Your task to perform on an android device: Open Maps and search for coffee Image 0: 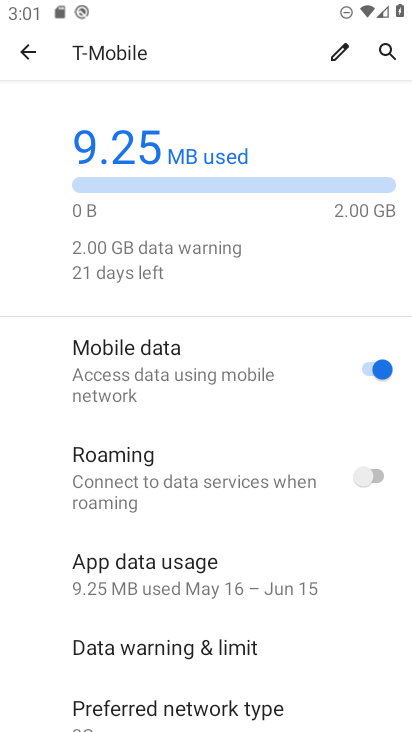
Step 0: press home button
Your task to perform on an android device: Open Maps and search for coffee Image 1: 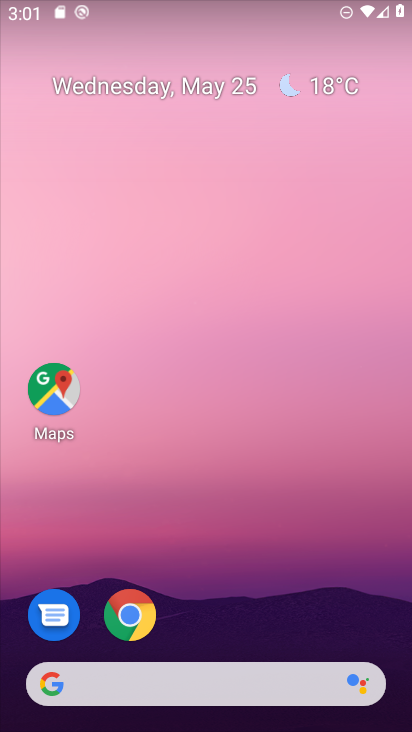
Step 1: click (49, 383)
Your task to perform on an android device: Open Maps and search for coffee Image 2: 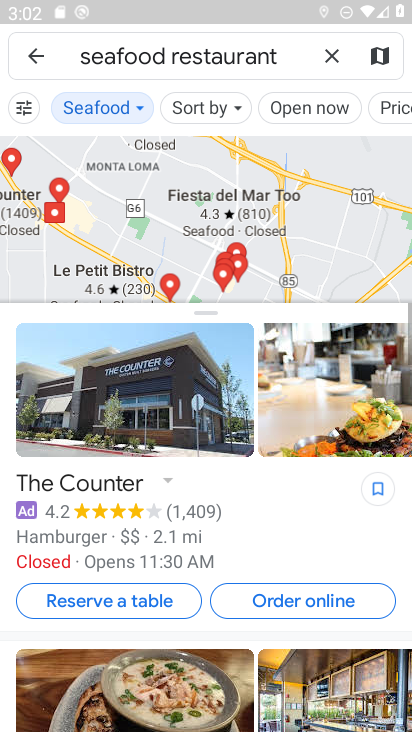
Step 2: click (324, 47)
Your task to perform on an android device: Open Maps and search for coffee Image 3: 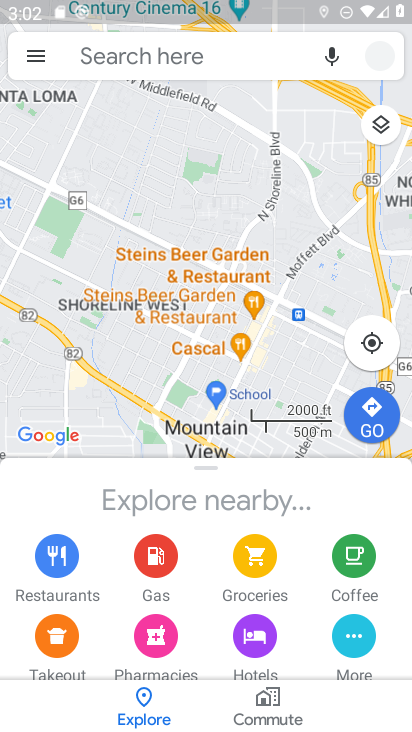
Step 3: click (225, 45)
Your task to perform on an android device: Open Maps and search for coffee Image 4: 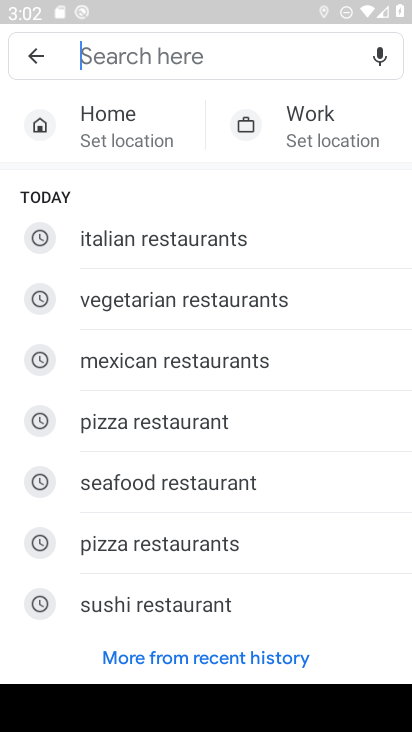
Step 4: type "coffee"
Your task to perform on an android device: Open Maps and search for coffee Image 5: 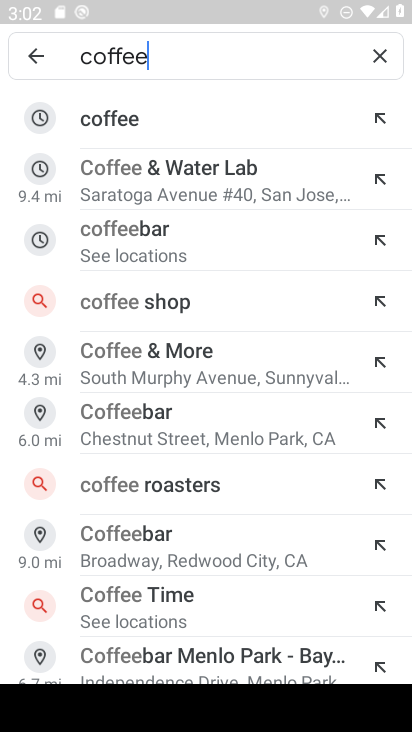
Step 5: click (170, 122)
Your task to perform on an android device: Open Maps and search for coffee Image 6: 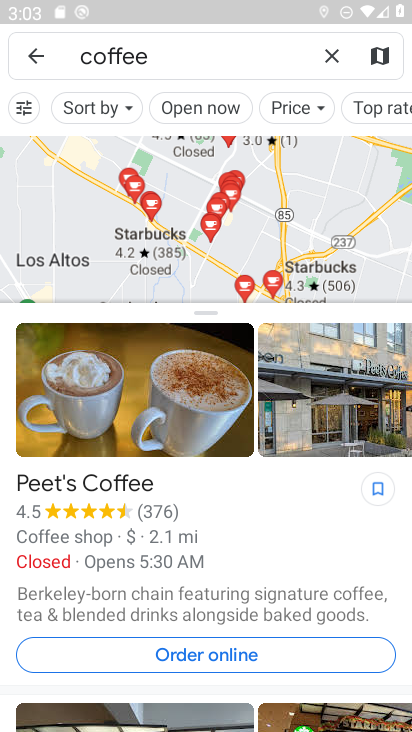
Step 6: task complete